Your task to perform on an android device: turn off priority inbox in the gmail app Image 0: 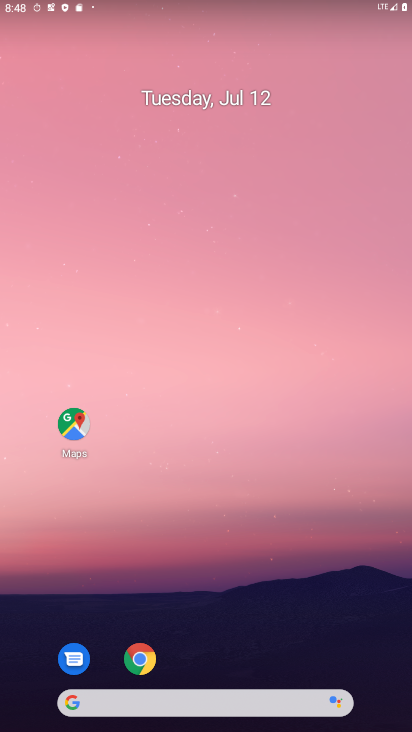
Step 0: drag from (380, 690) to (253, 56)
Your task to perform on an android device: turn off priority inbox in the gmail app Image 1: 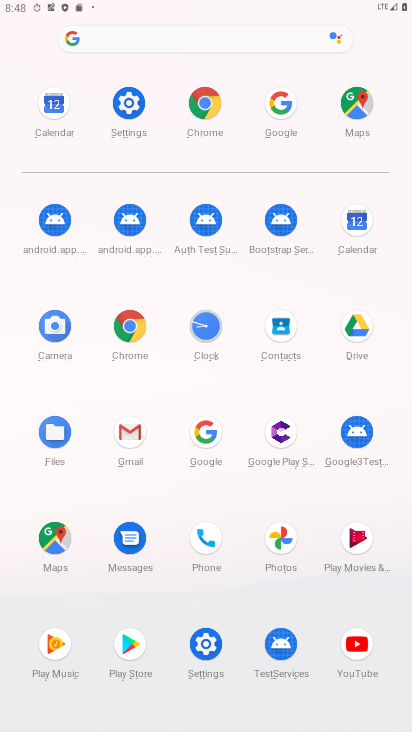
Step 1: click (137, 425)
Your task to perform on an android device: turn off priority inbox in the gmail app Image 2: 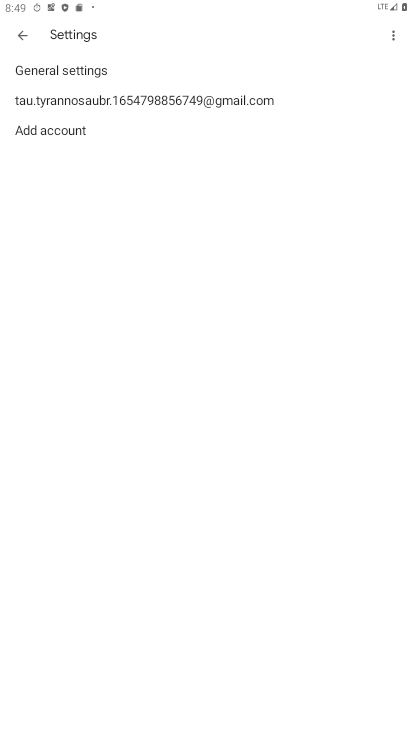
Step 2: click (197, 86)
Your task to perform on an android device: turn off priority inbox in the gmail app Image 3: 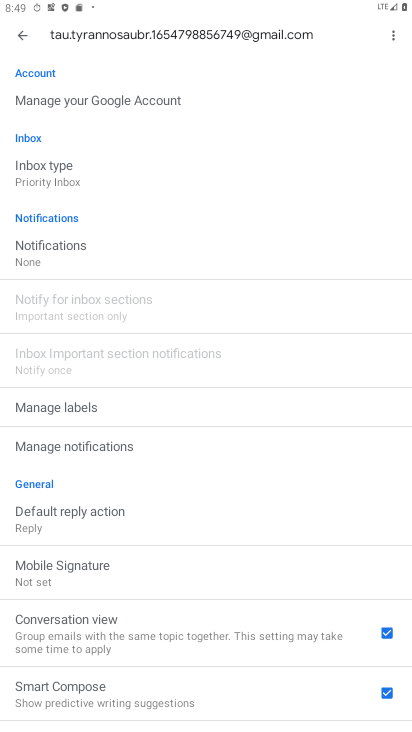
Step 3: click (113, 170)
Your task to perform on an android device: turn off priority inbox in the gmail app Image 4: 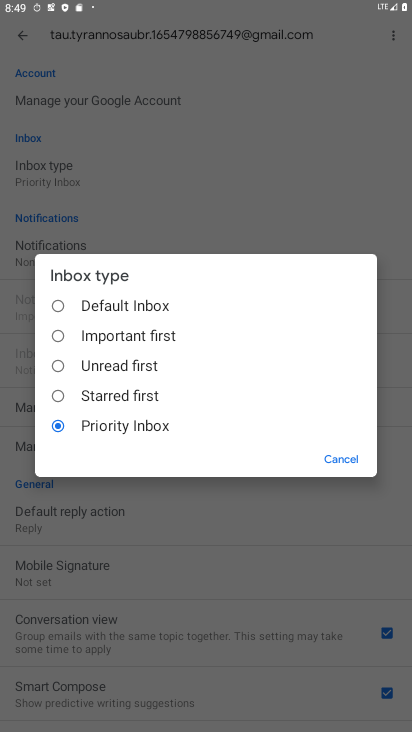
Step 4: click (72, 309)
Your task to perform on an android device: turn off priority inbox in the gmail app Image 5: 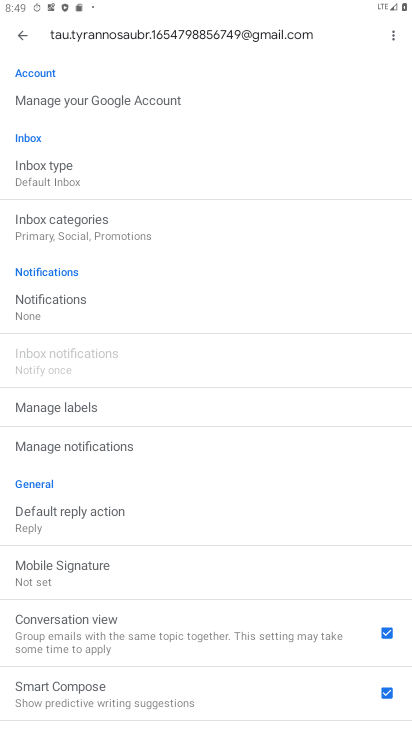
Step 5: task complete